Your task to perform on an android device: Do I have any events tomorrow? Image 0: 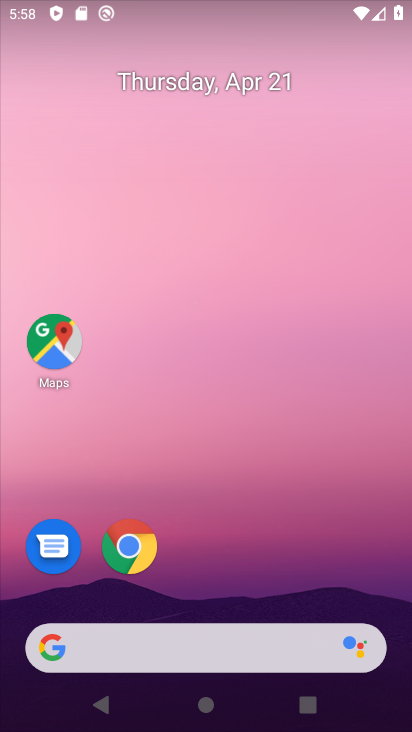
Step 0: drag from (252, 579) to (218, 0)
Your task to perform on an android device: Do I have any events tomorrow? Image 1: 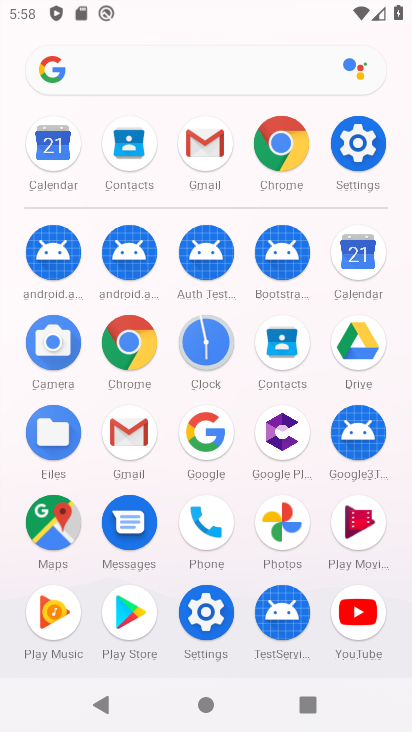
Step 1: click (363, 252)
Your task to perform on an android device: Do I have any events tomorrow? Image 2: 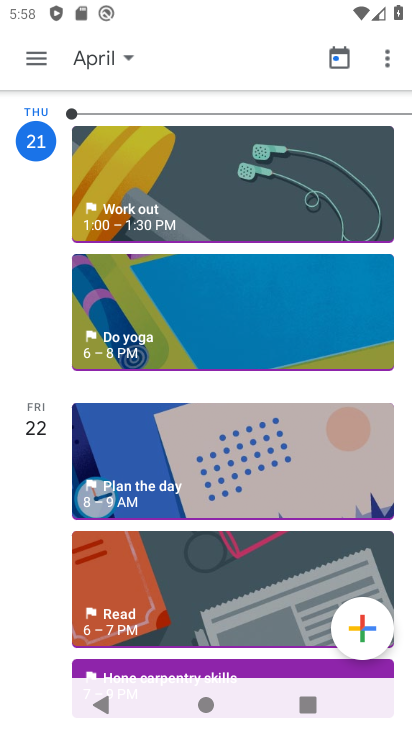
Step 2: click (40, 64)
Your task to perform on an android device: Do I have any events tomorrow? Image 3: 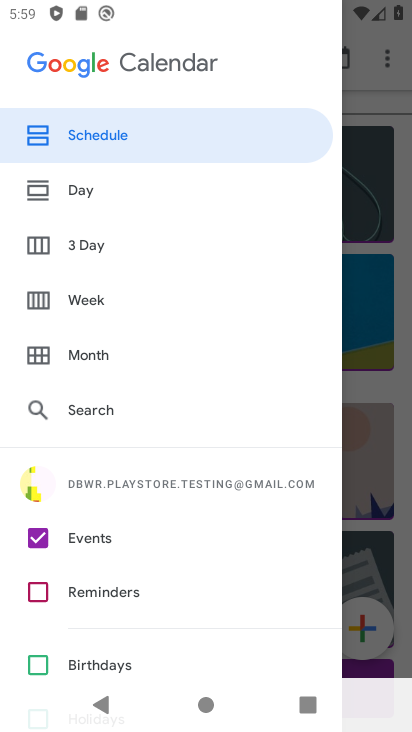
Step 3: click (83, 186)
Your task to perform on an android device: Do I have any events tomorrow? Image 4: 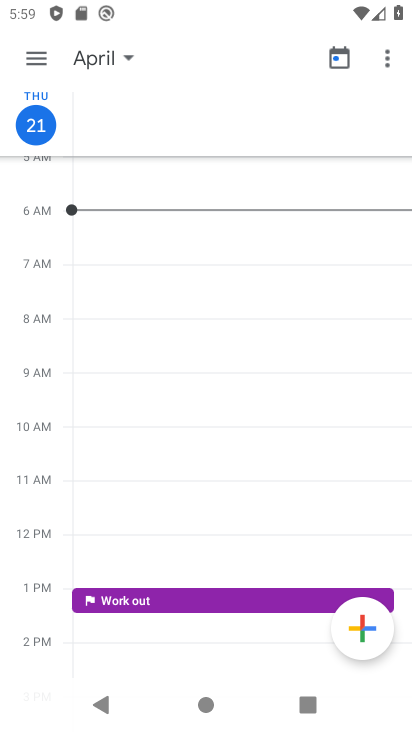
Step 4: click (118, 53)
Your task to perform on an android device: Do I have any events tomorrow? Image 5: 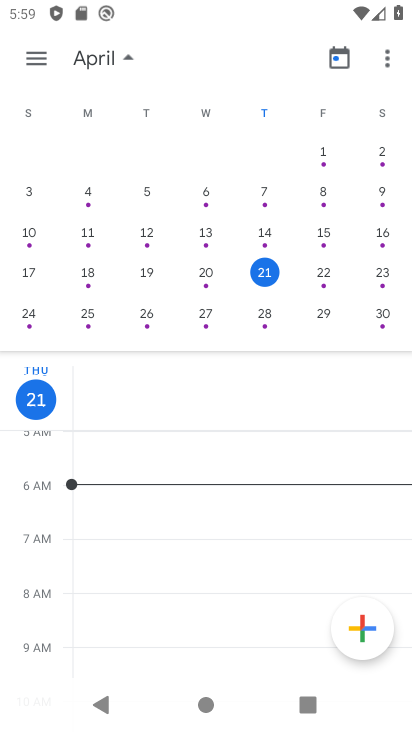
Step 5: click (326, 271)
Your task to perform on an android device: Do I have any events tomorrow? Image 6: 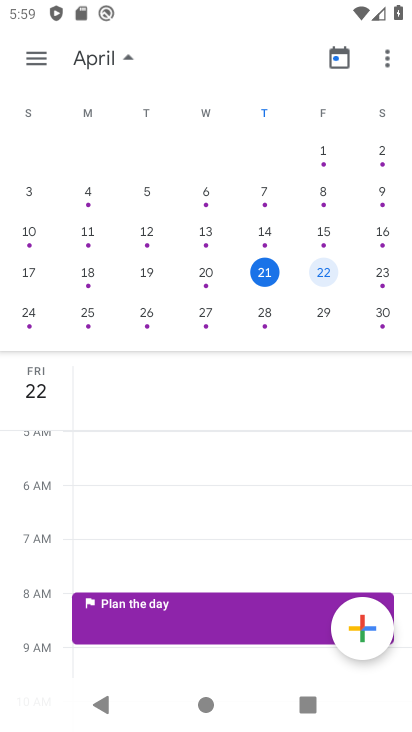
Step 6: task complete